Your task to perform on an android device: turn on bluetooth scan Image 0: 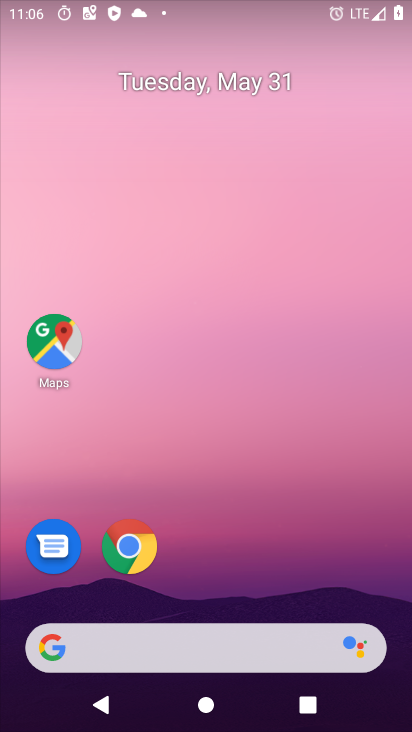
Step 0: drag from (255, 541) to (278, 93)
Your task to perform on an android device: turn on bluetooth scan Image 1: 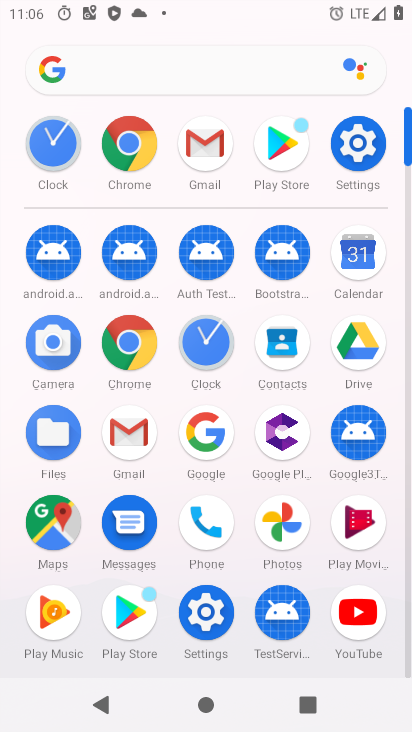
Step 1: click (359, 137)
Your task to perform on an android device: turn on bluetooth scan Image 2: 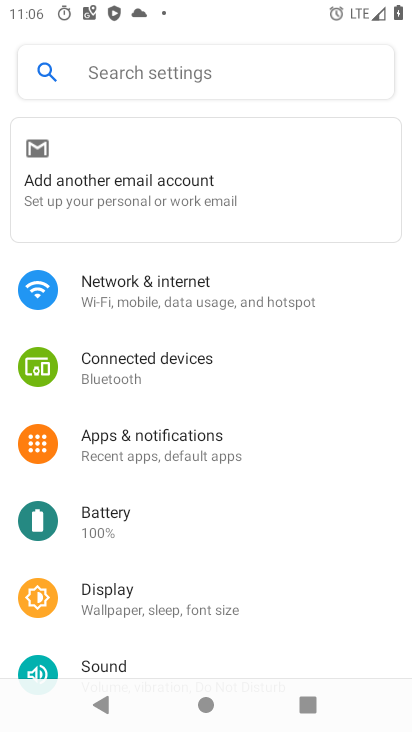
Step 2: click (172, 367)
Your task to perform on an android device: turn on bluetooth scan Image 3: 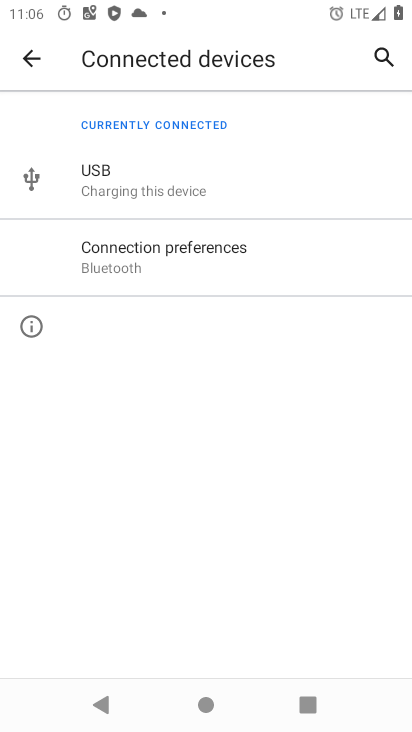
Step 3: click (126, 257)
Your task to perform on an android device: turn on bluetooth scan Image 4: 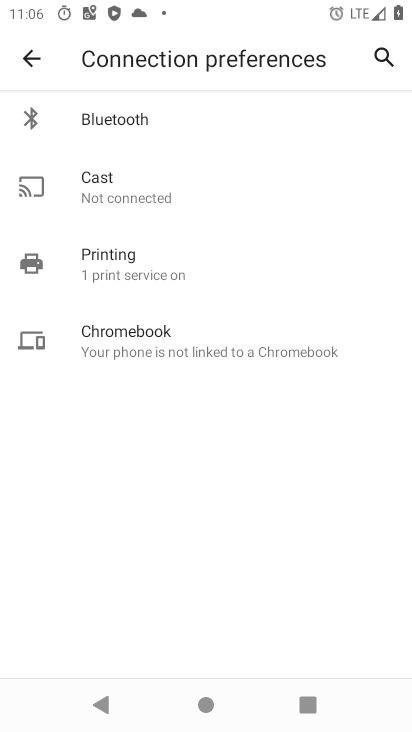
Step 4: click (156, 118)
Your task to perform on an android device: turn on bluetooth scan Image 5: 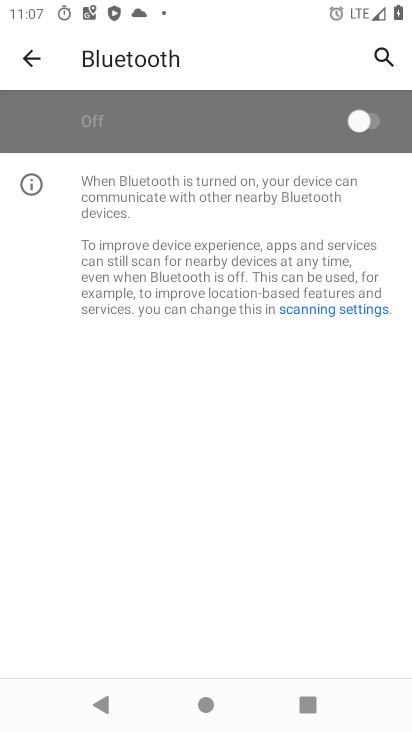
Step 5: click (382, 117)
Your task to perform on an android device: turn on bluetooth scan Image 6: 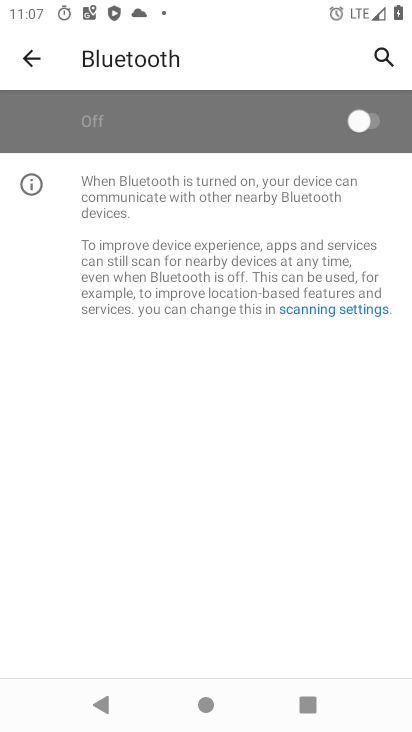
Step 6: click (349, 121)
Your task to perform on an android device: turn on bluetooth scan Image 7: 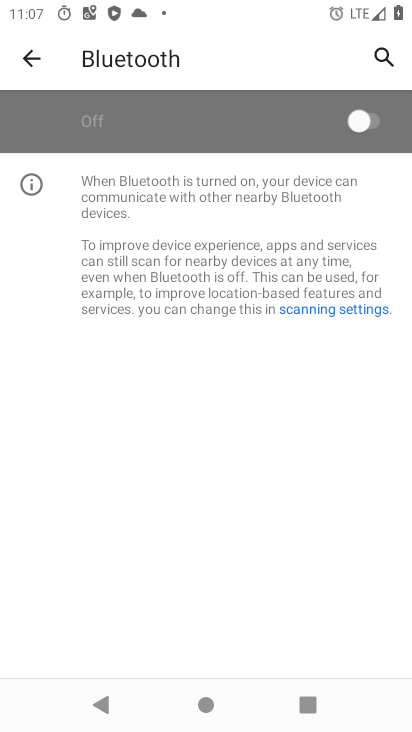
Step 7: click (349, 121)
Your task to perform on an android device: turn on bluetooth scan Image 8: 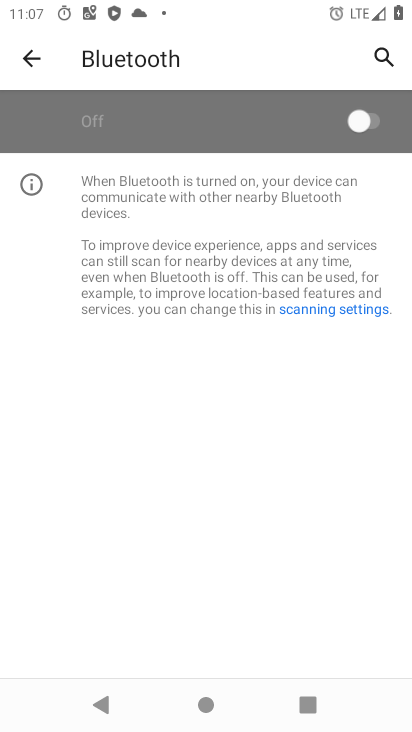
Step 8: click (356, 114)
Your task to perform on an android device: turn on bluetooth scan Image 9: 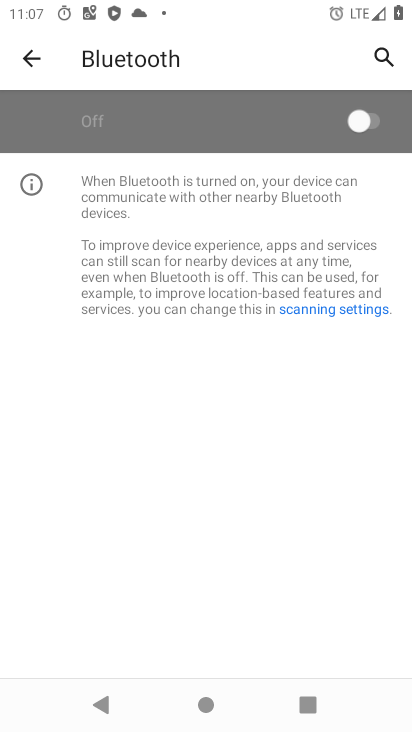
Step 9: click (356, 114)
Your task to perform on an android device: turn on bluetooth scan Image 10: 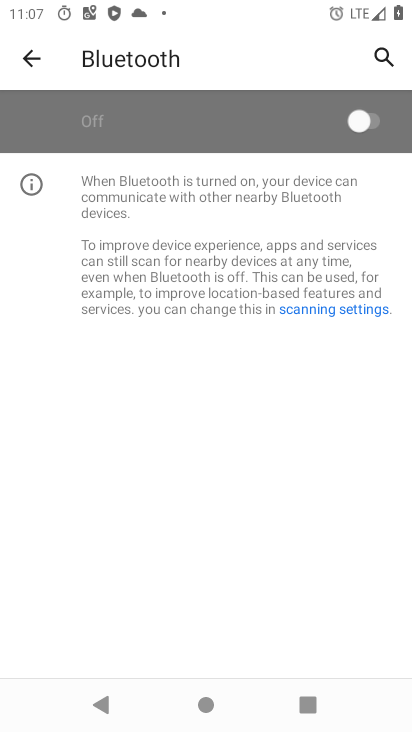
Step 10: click (356, 114)
Your task to perform on an android device: turn on bluetooth scan Image 11: 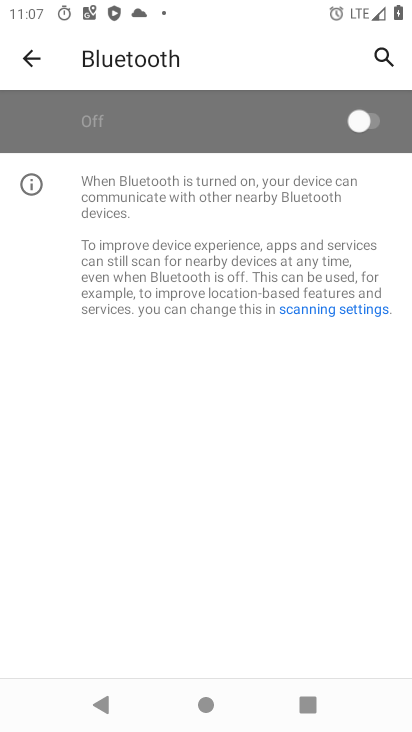
Step 11: click (356, 114)
Your task to perform on an android device: turn on bluetooth scan Image 12: 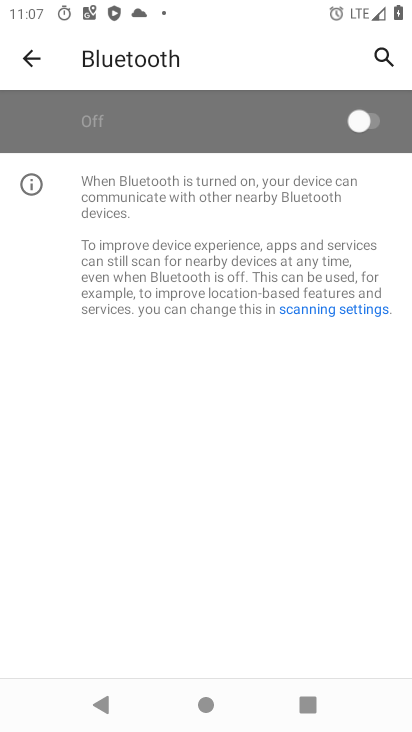
Step 12: click (356, 114)
Your task to perform on an android device: turn on bluetooth scan Image 13: 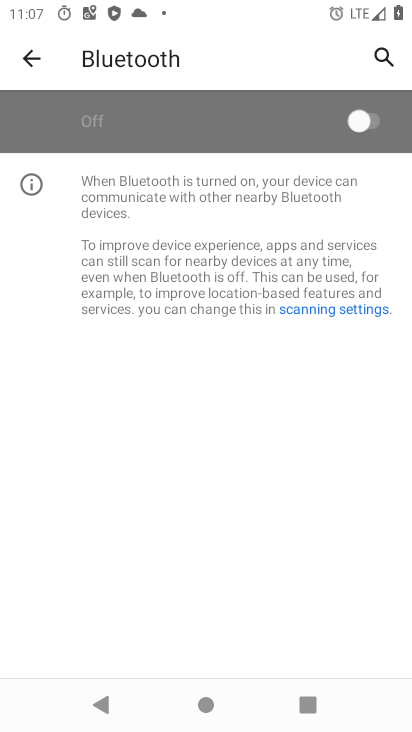
Step 13: click (372, 114)
Your task to perform on an android device: turn on bluetooth scan Image 14: 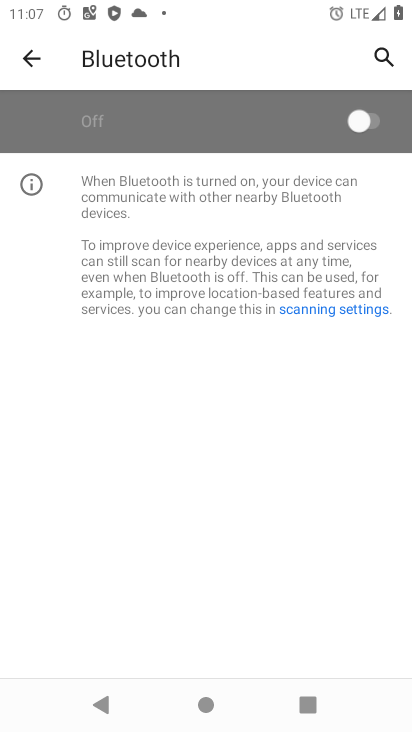
Step 14: click (357, 120)
Your task to perform on an android device: turn on bluetooth scan Image 15: 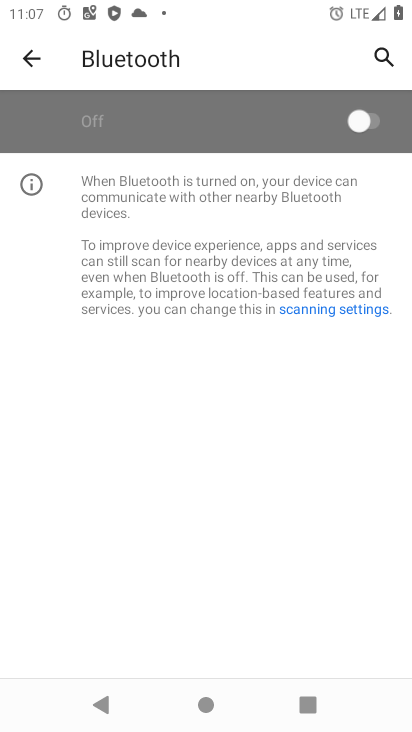
Step 15: click (357, 120)
Your task to perform on an android device: turn on bluetooth scan Image 16: 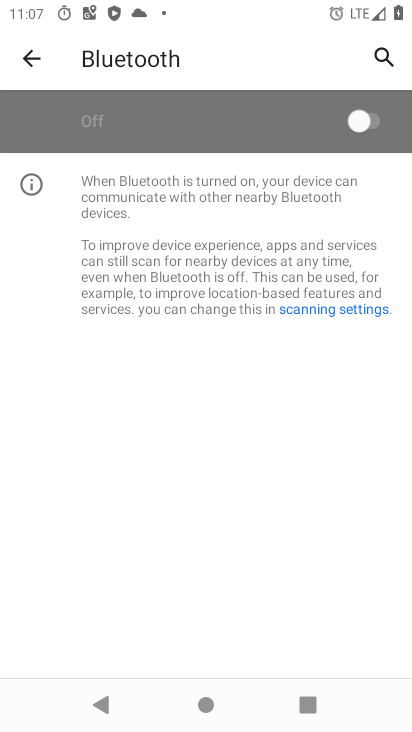
Step 16: click (357, 120)
Your task to perform on an android device: turn on bluetooth scan Image 17: 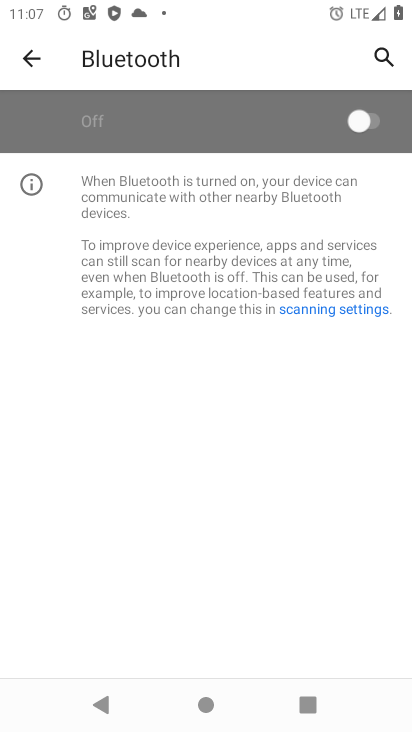
Step 17: click (357, 120)
Your task to perform on an android device: turn on bluetooth scan Image 18: 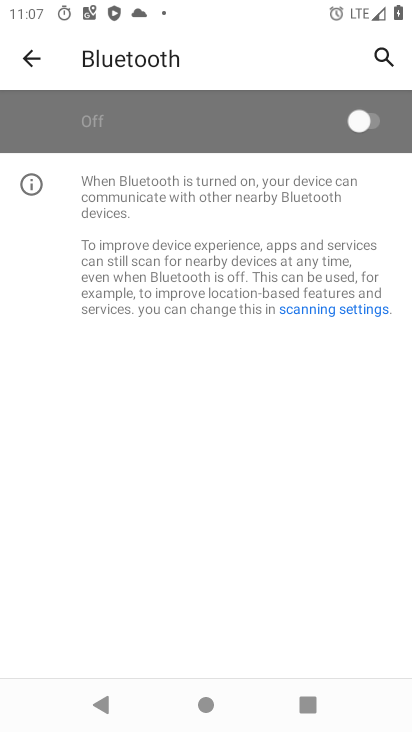
Step 18: click (357, 120)
Your task to perform on an android device: turn on bluetooth scan Image 19: 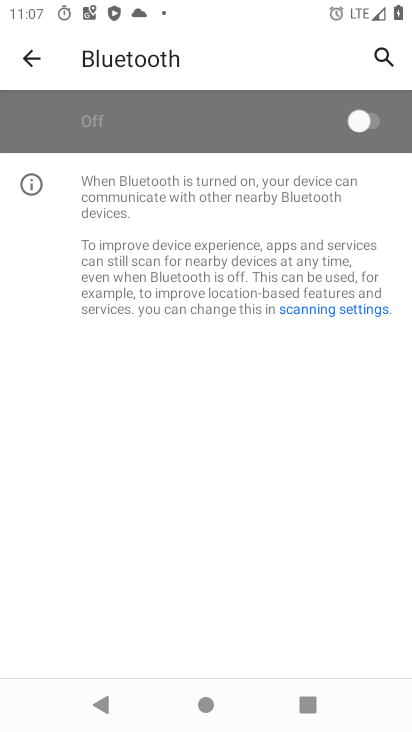
Step 19: click (357, 120)
Your task to perform on an android device: turn on bluetooth scan Image 20: 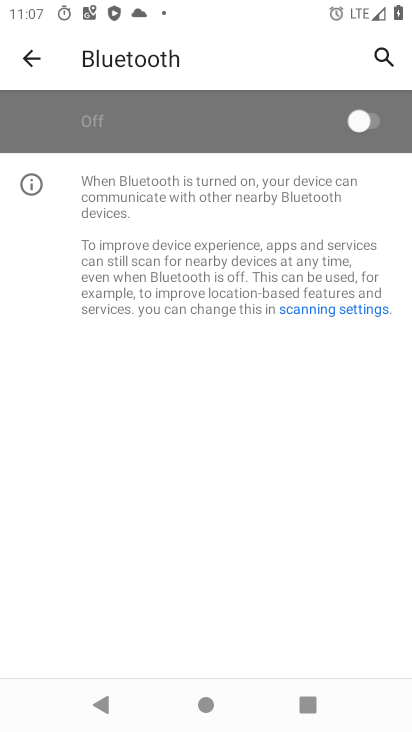
Step 20: click (357, 120)
Your task to perform on an android device: turn on bluetooth scan Image 21: 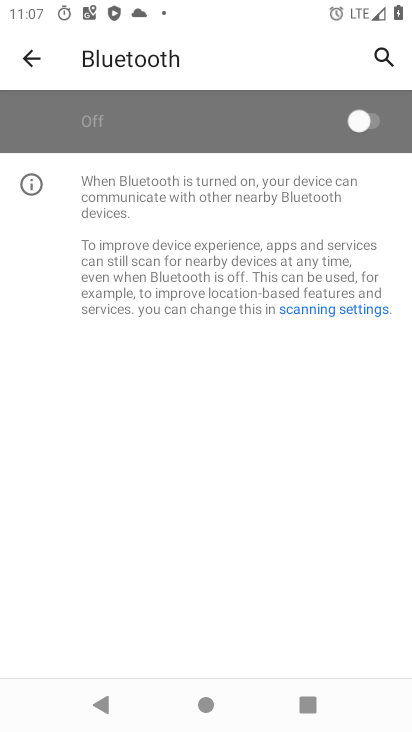
Step 21: click (357, 120)
Your task to perform on an android device: turn on bluetooth scan Image 22: 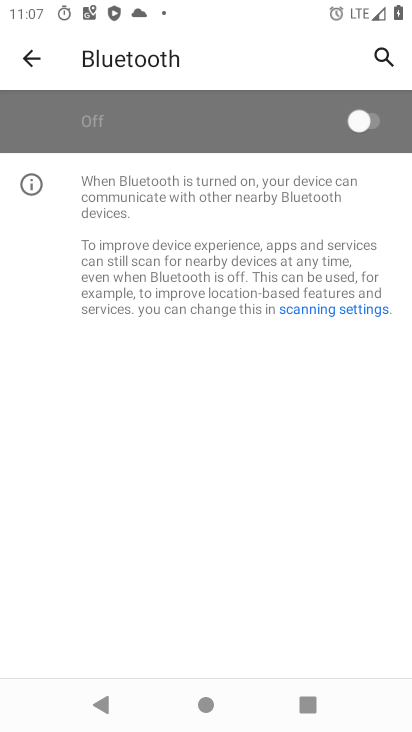
Step 22: click (357, 120)
Your task to perform on an android device: turn on bluetooth scan Image 23: 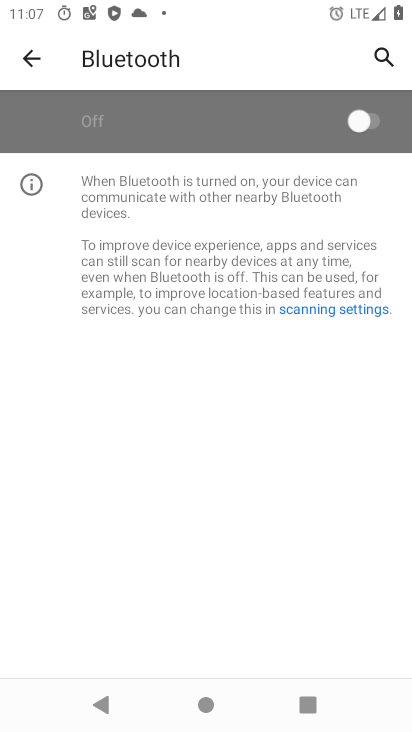
Step 23: click (363, 121)
Your task to perform on an android device: turn on bluetooth scan Image 24: 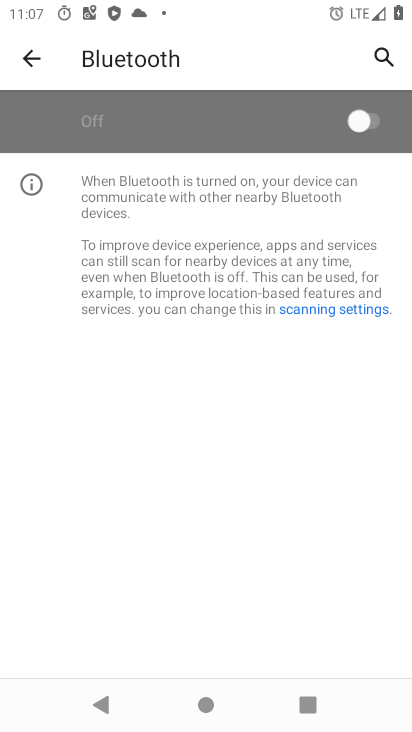
Step 24: click (363, 121)
Your task to perform on an android device: turn on bluetooth scan Image 25: 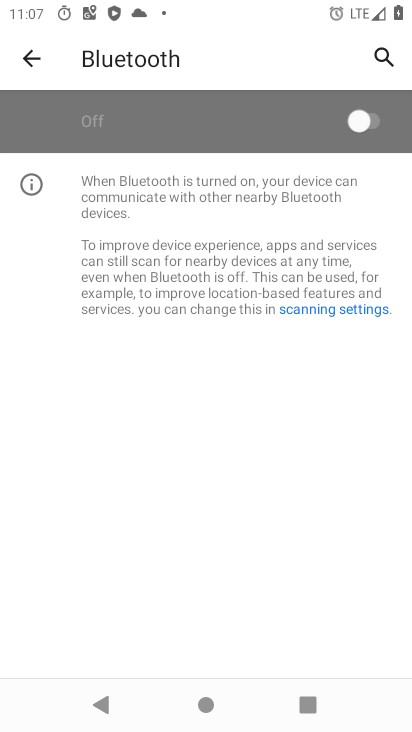
Step 25: click (363, 121)
Your task to perform on an android device: turn on bluetooth scan Image 26: 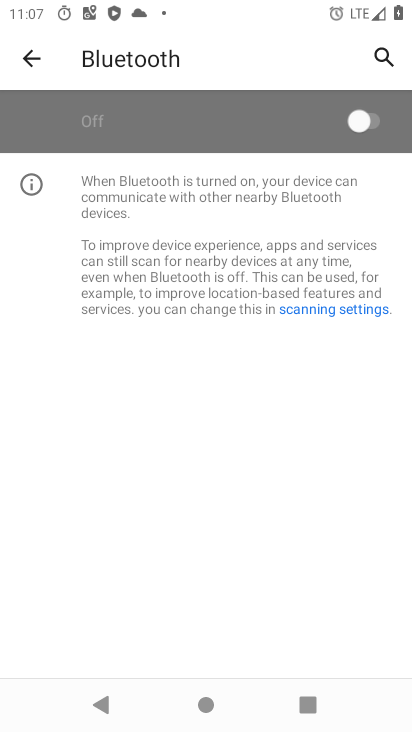
Step 26: click (363, 121)
Your task to perform on an android device: turn on bluetooth scan Image 27: 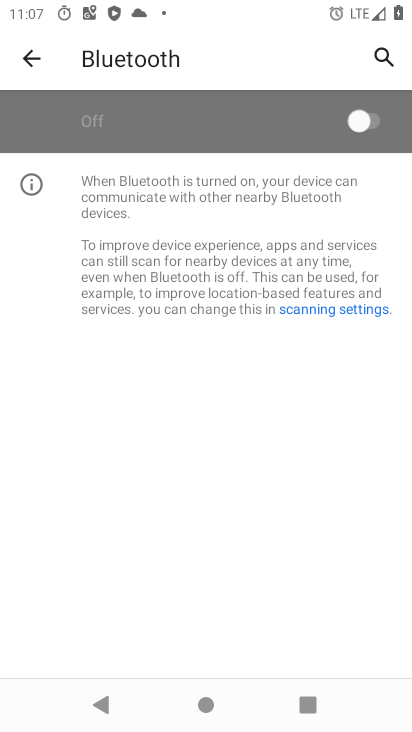
Step 27: press home button
Your task to perform on an android device: turn on bluetooth scan Image 28: 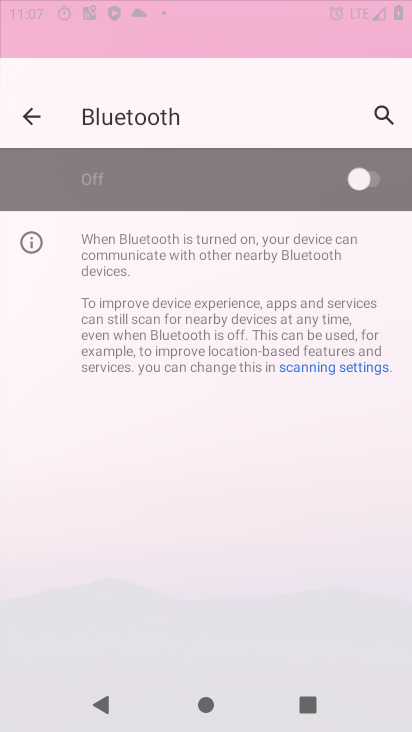
Step 28: press home button
Your task to perform on an android device: turn on bluetooth scan Image 29: 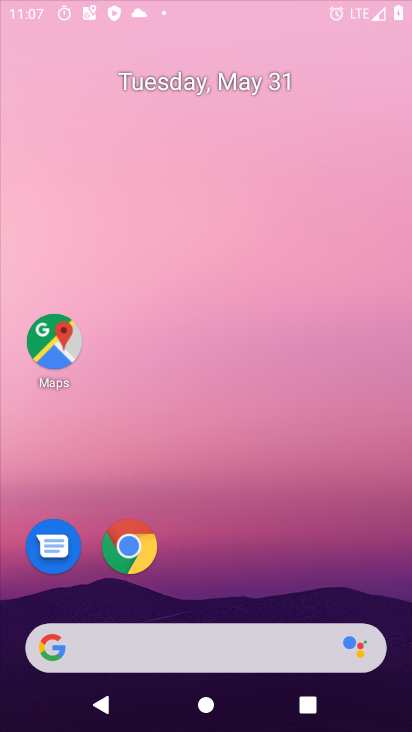
Step 29: press home button
Your task to perform on an android device: turn on bluetooth scan Image 30: 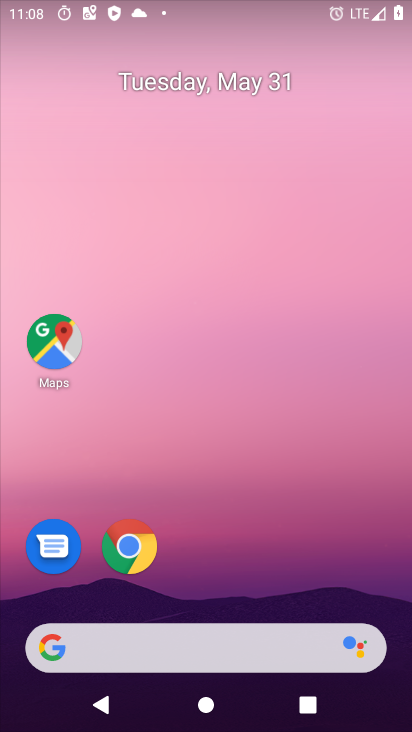
Step 30: drag from (214, 535) to (280, 248)
Your task to perform on an android device: turn on bluetooth scan Image 31: 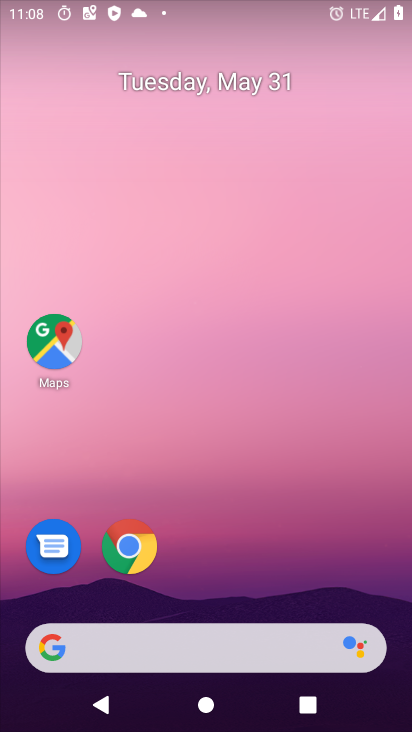
Step 31: drag from (280, 524) to (352, 112)
Your task to perform on an android device: turn on bluetooth scan Image 32: 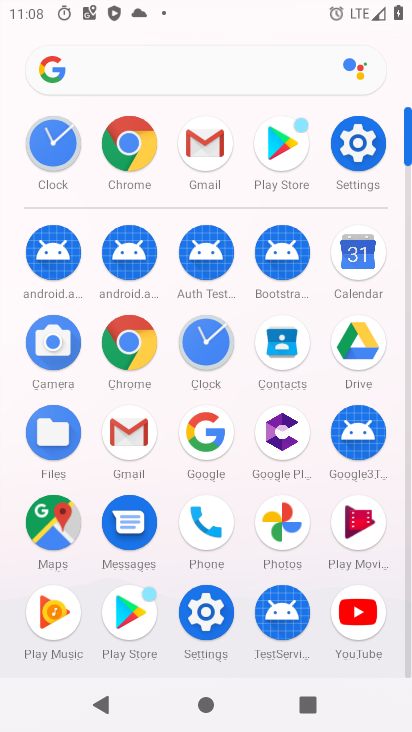
Step 32: click (356, 130)
Your task to perform on an android device: turn on bluetooth scan Image 33: 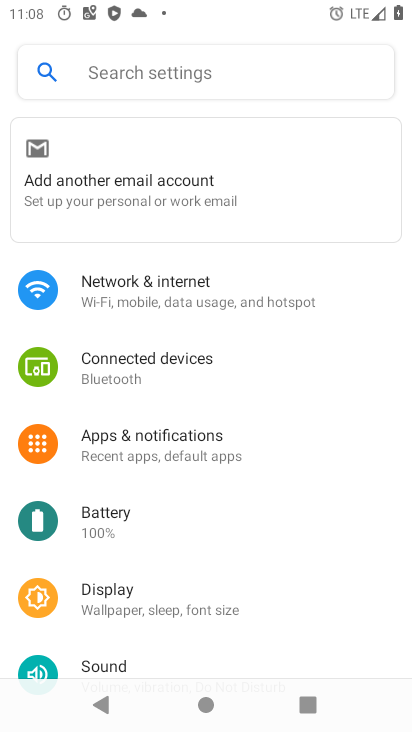
Step 33: click (171, 381)
Your task to perform on an android device: turn on bluetooth scan Image 34: 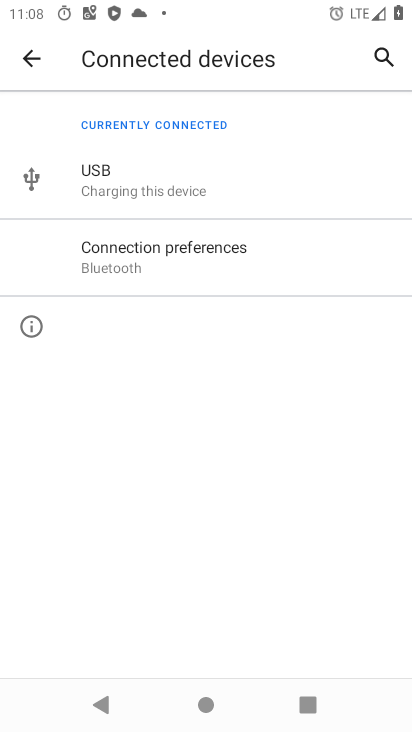
Step 34: click (144, 256)
Your task to perform on an android device: turn on bluetooth scan Image 35: 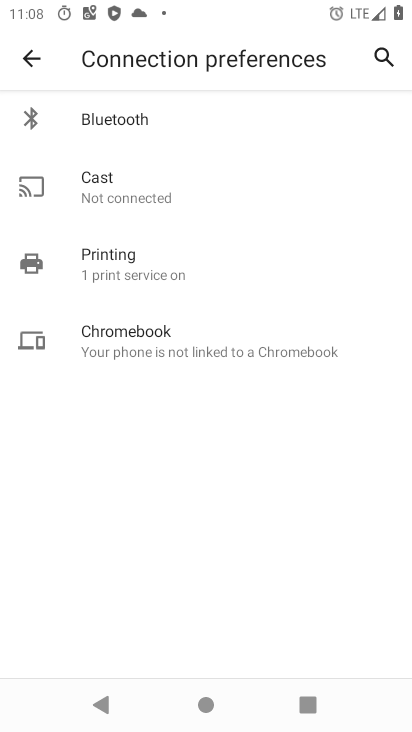
Step 35: click (129, 128)
Your task to perform on an android device: turn on bluetooth scan Image 36: 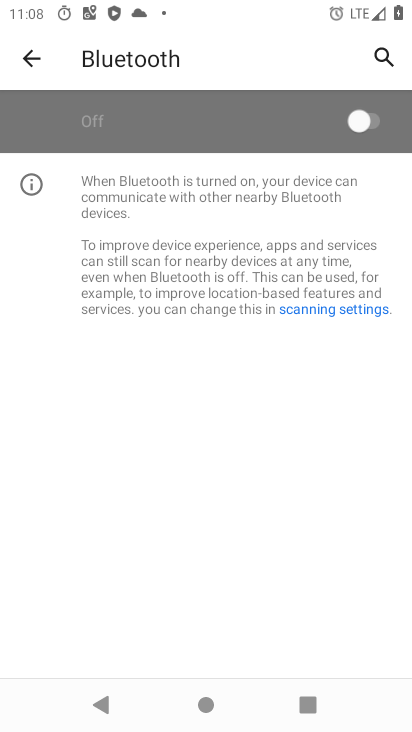
Step 36: click (360, 121)
Your task to perform on an android device: turn on bluetooth scan Image 37: 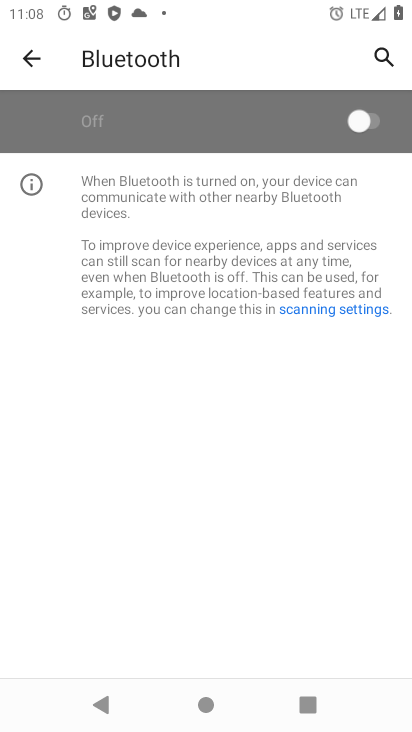
Step 37: click (360, 121)
Your task to perform on an android device: turn on bluetooth scan Image 38: 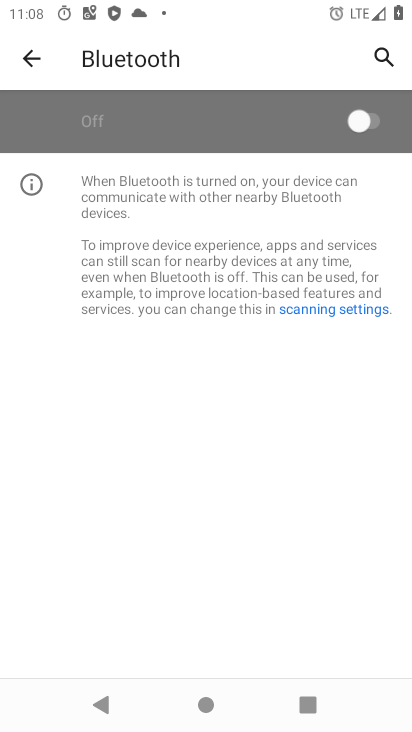
Step 38: click (360, 121)
Your task to perform on an android device: turn on bluetooth scan Image 39: 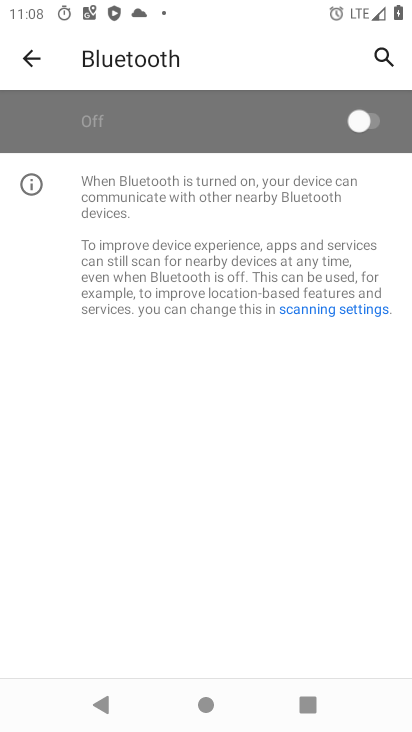
Step 39: click (360, 121)
Your task to perform on an android device: turn on bluetooth scan Image 40: 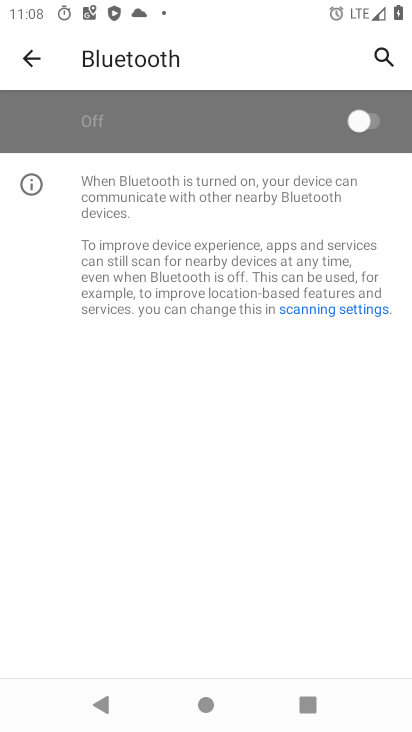
Step 40: click (360, 121)
Your task to perform on an android device: turn on bluetooth scan Image 41: 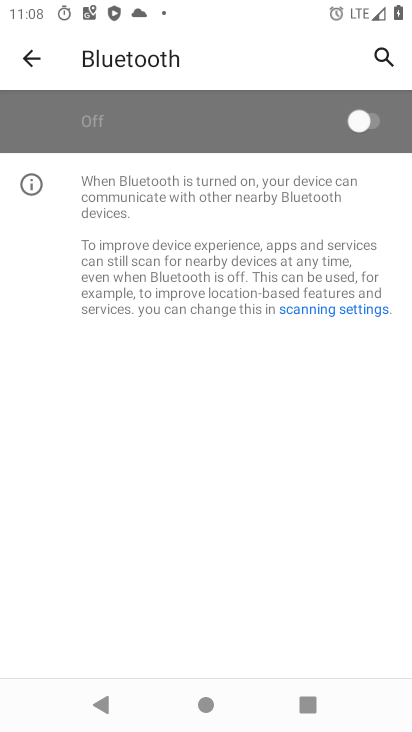
Step 41: click (360, 121)
Your task to perform on an android device: turn on bluetooth scan Image 42: 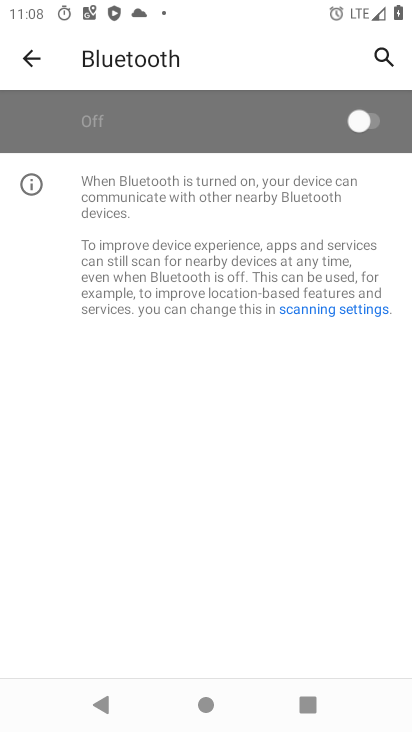
Step 42: click (360, 121)
Your task to perform on an android device: turn on bluetooth scan Image 43: 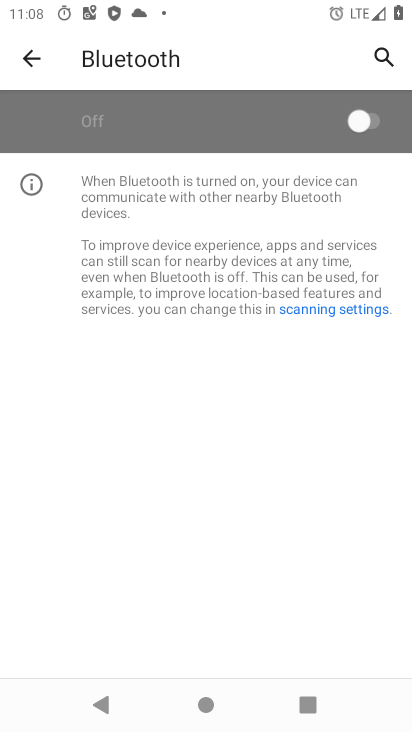
Step 43: click (360, 121)
Your task to perform on an android device: turn on bluetooth scan Image 44: 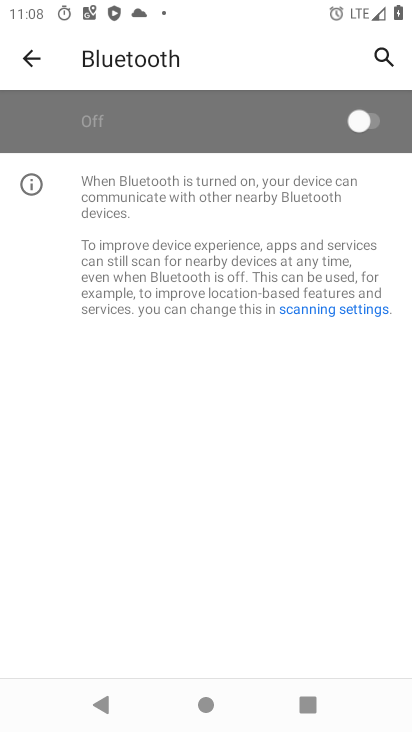
Step 44: click (360, 121)
Your task to perform on an android device: turn on bluetooth scan Image 45: 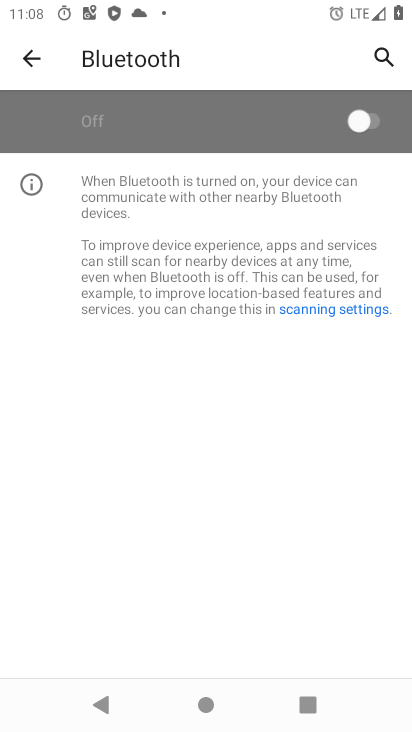
Step 45: task complete